Your task to perform on an android device: turn off notifications settings in the gmail app Image 0: 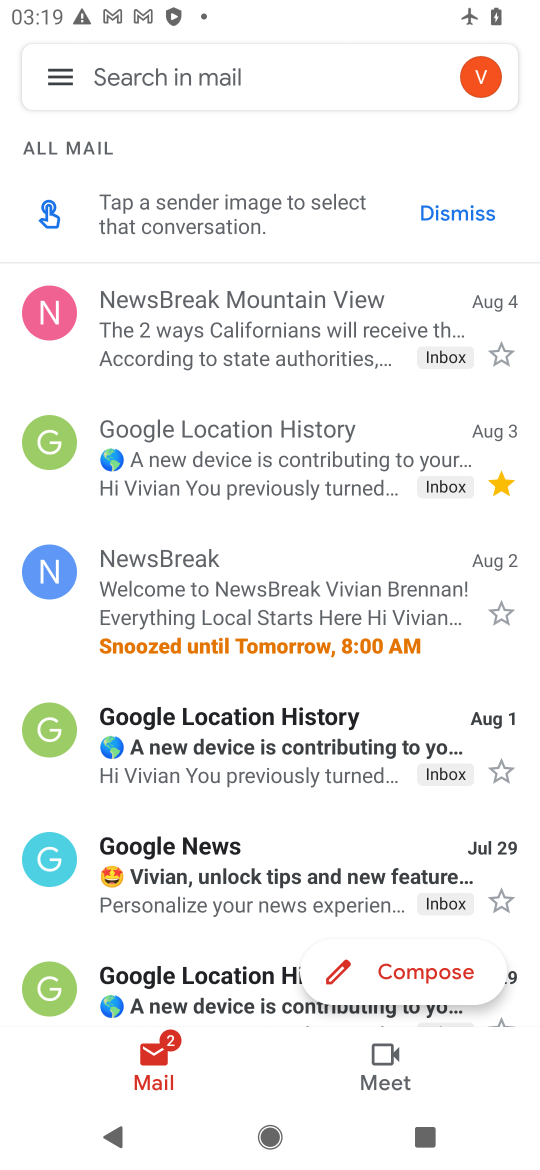
Step 0: click (64, 77)
Your task to perform on an android device: turn off notifications settings in the gmail app Image 1: 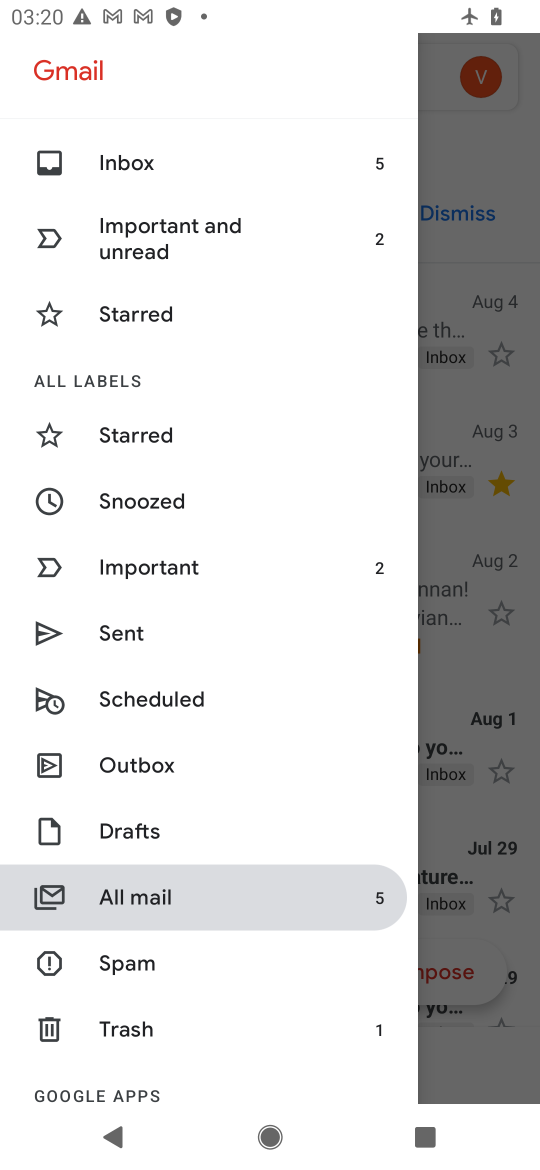
Step 1: drag from (183, 1027) to (199, 582)
Your task to perform on an android device: turn off notifications settings in the gmail app Image 2: 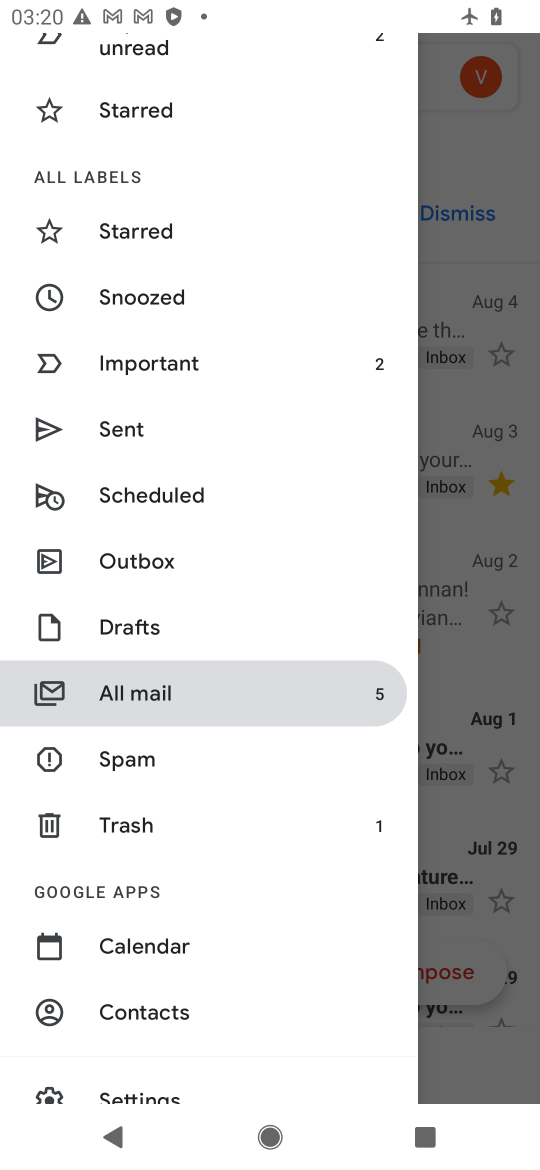
Step 2: click (132, 1085)
Your task to perform on an android device: turn off notifications settings in the gmail app Image 3: 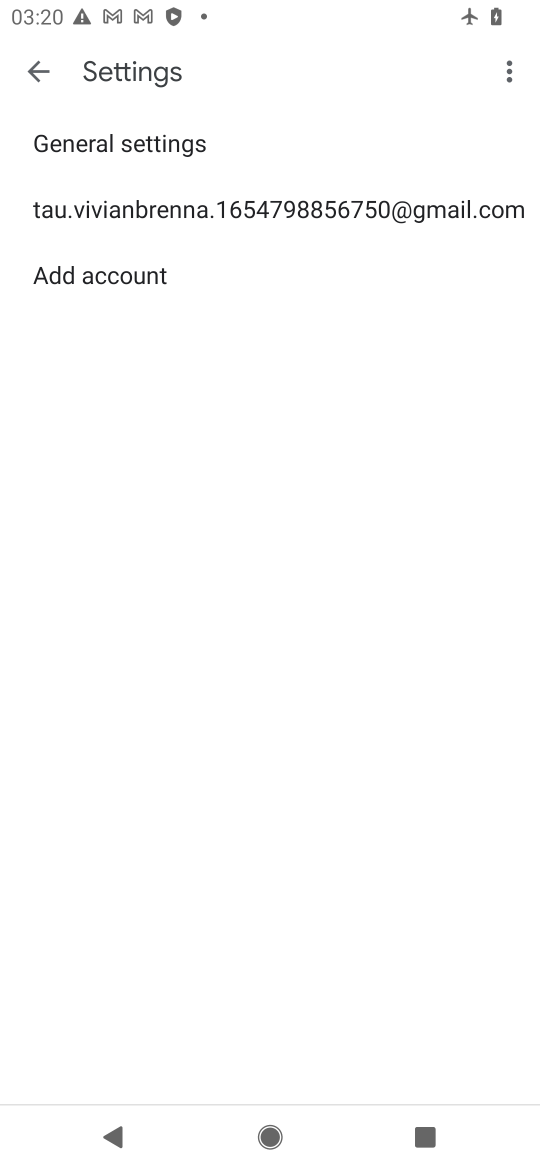
Step 3: click (78, 133)
Your task to perform on an android device: turn off notifications settings in the gmail app Image 4: 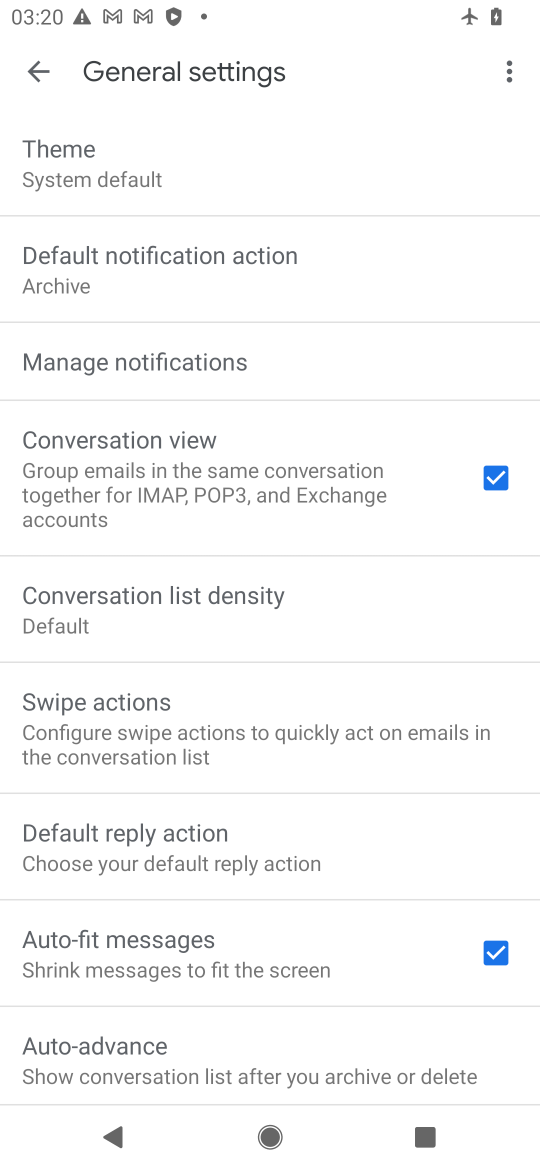
Step 4: click (98, 354)
Your task to perform on an android device: turn off notifications settings in the gmail app Image 5: 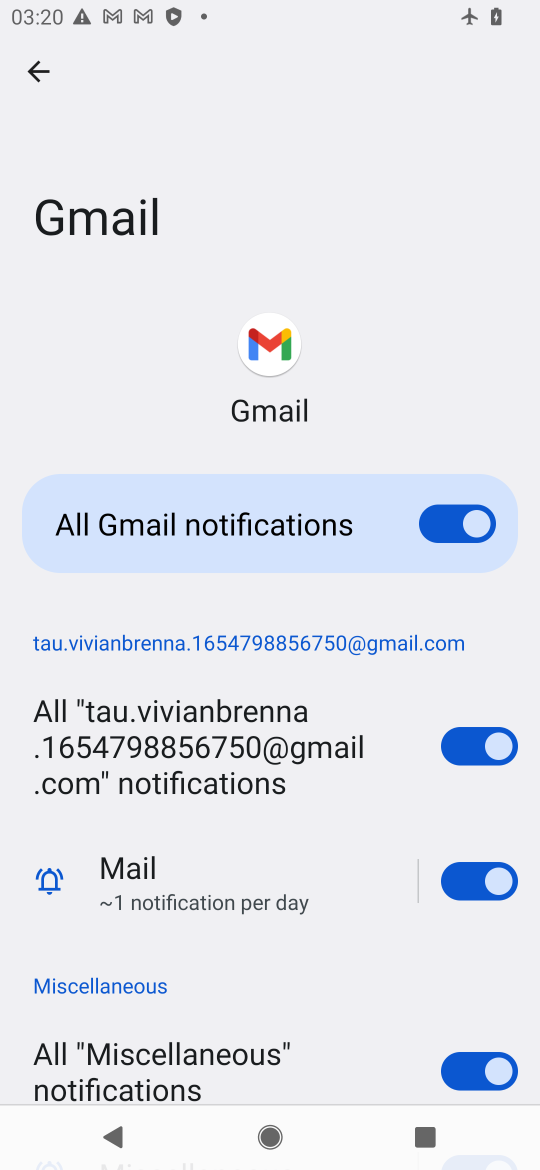
Step 5: drag from (261, 985) to (273, 715)
Your task to perform on an android device: turn off notifications settings in the gmail app Image 6: 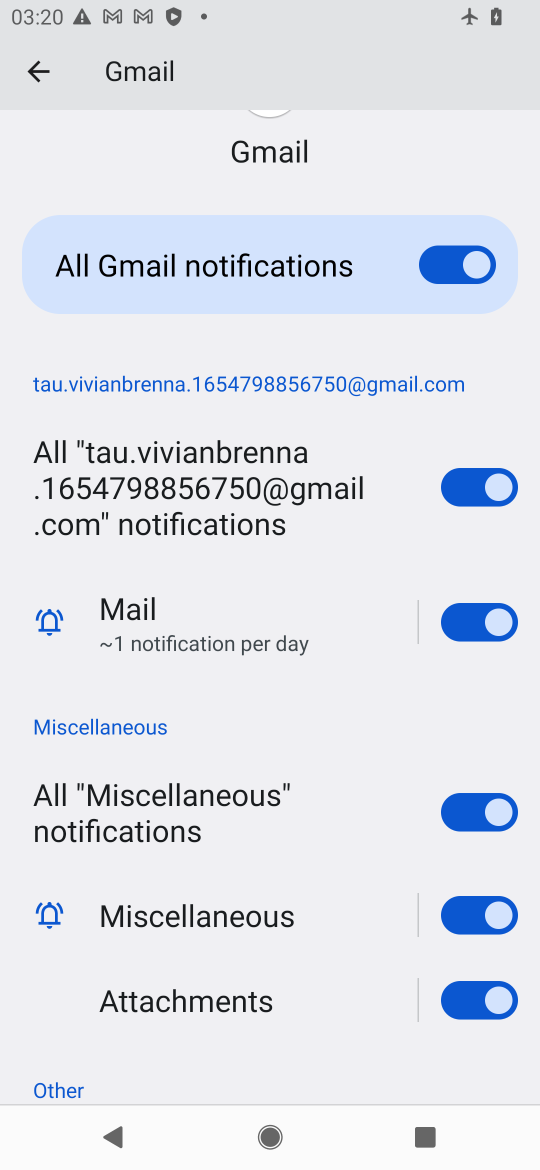
Step 6: click (461, 267)
Your task to perform on an android device: turn off notifications settings in the gmail app Image 7: 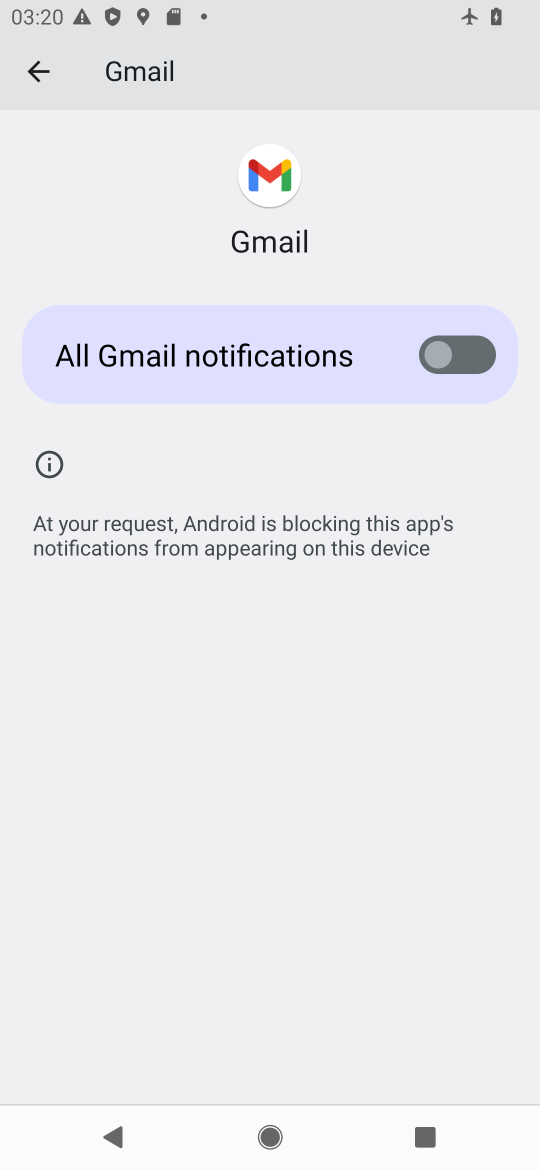
Step 7: task complete